Your task to perform on an android device: Open location settings Image 0: 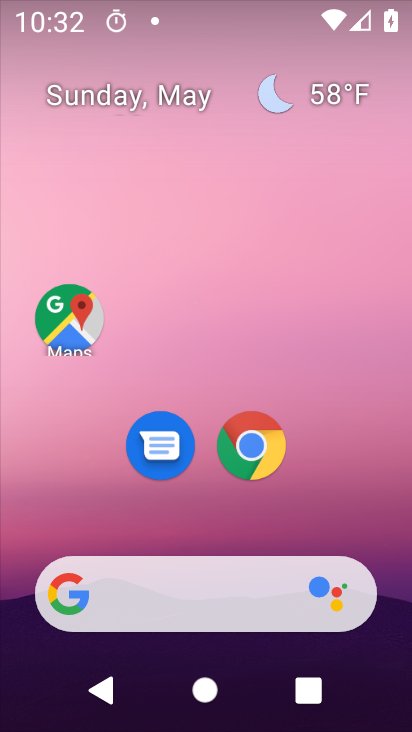
Step 0: drag from (325, 479) to (174, 1)
Your task to perform on an android device: Open location settings Image 1: 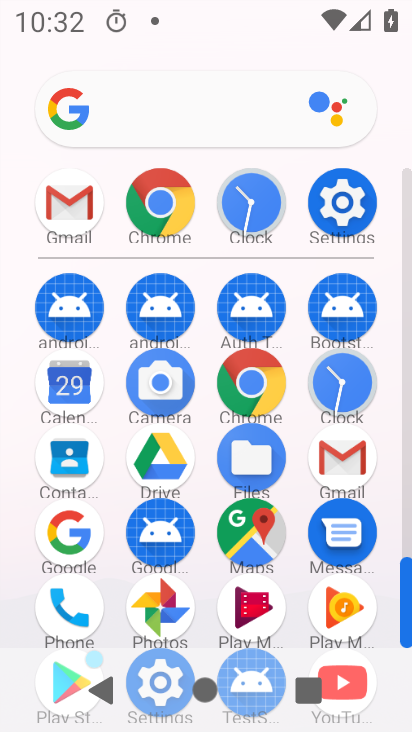
Step 1: drag from (20, 471) to (23, 200)
Your task to perform on an android device: Open location settings Image 2: 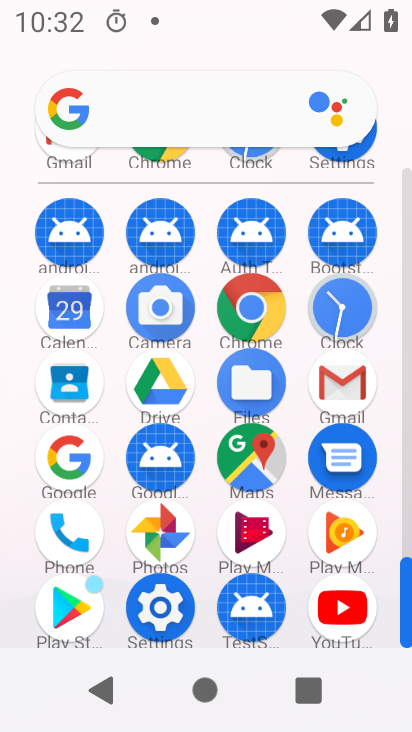
Step 2: click (161, 607)
Your task to perform on an android device: Open location settings Image 3: 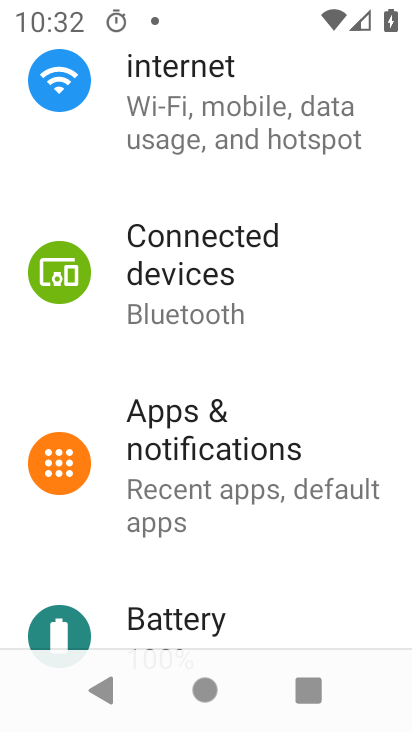
Step 3: drag from (277, 194) to (284, 571)
Your task to perform on an android device: Open location settings Image 4: 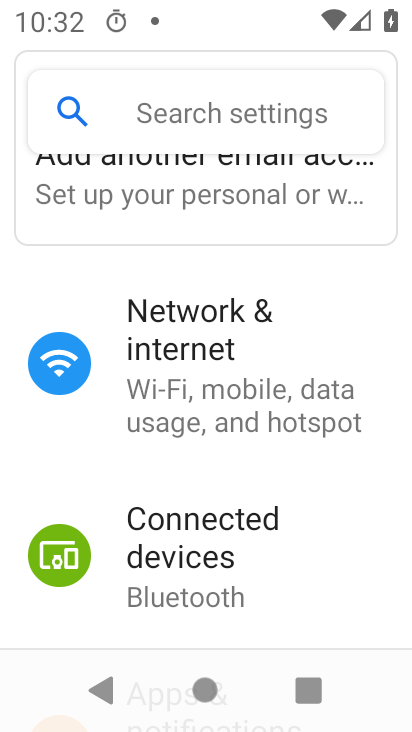
Step 4: drag from (275, 567) to (287, 246)
Your task to perform on an android device: Open location settings Image 5: 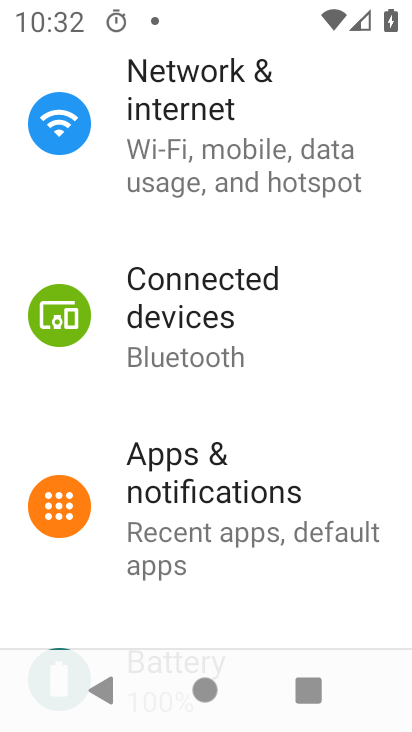
Step 5: drag from (241, 648) to (223, 218)
Your task to perform on an android device: Open location settings Image 6: 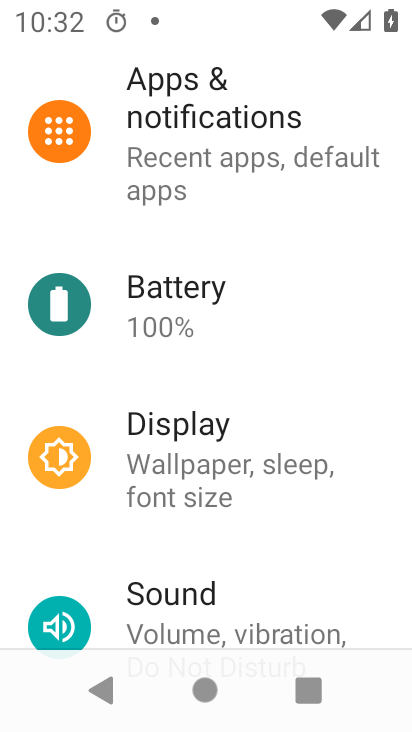
Step 6: drag from (253, 533) to (244, 167)
Your task to perform on an android device: Open location settings Image 7: 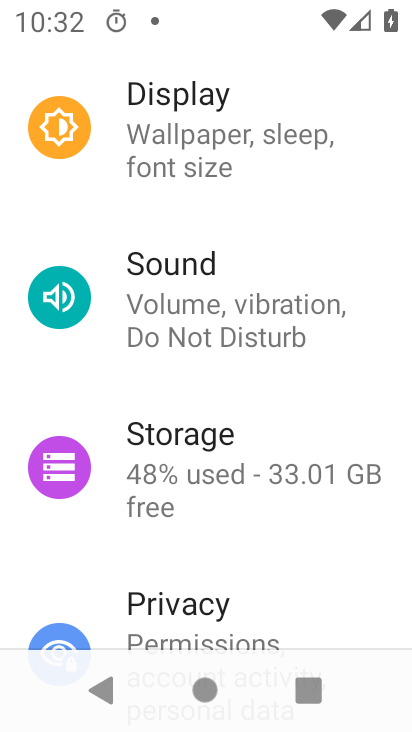
Step 7: drag from (266, 512) to (265, 168)
Your task to perform on an android device: Open location settings Image 8: 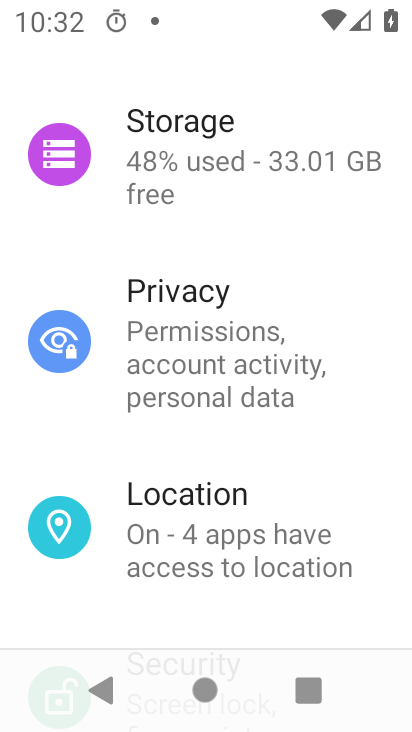
Step 8: click (250, 497)
Your task to perform on an android device: Open location settings Image 9: 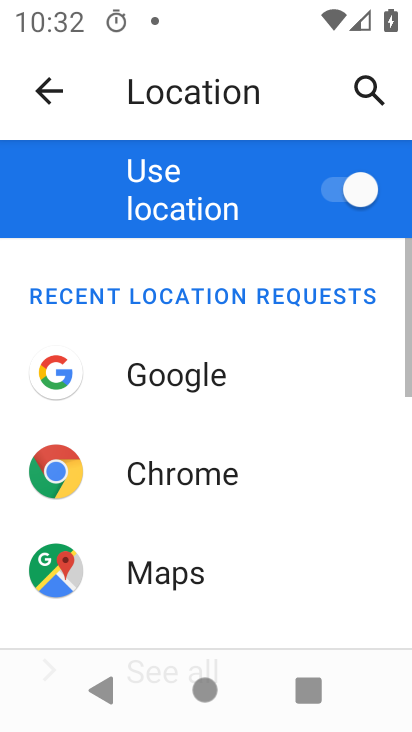
Step 9: drag from (249, 576) to (231, 238)
Your task to perform on an android device: Open location settings Image 10: 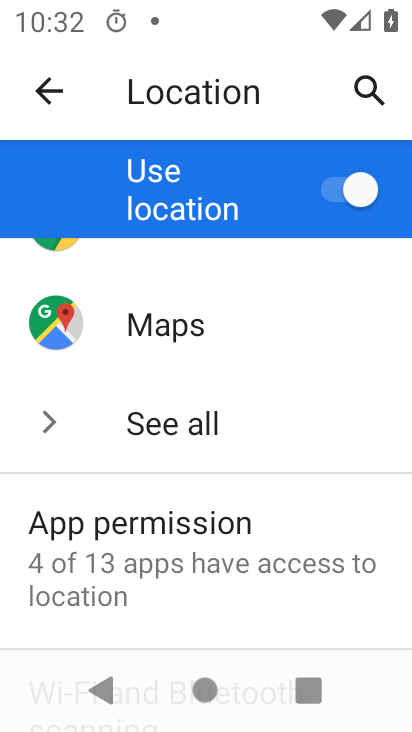
Step 10: drag from (293, 541) to (240, 128)
Your task to perform on an android device: Open location settings Image 11: 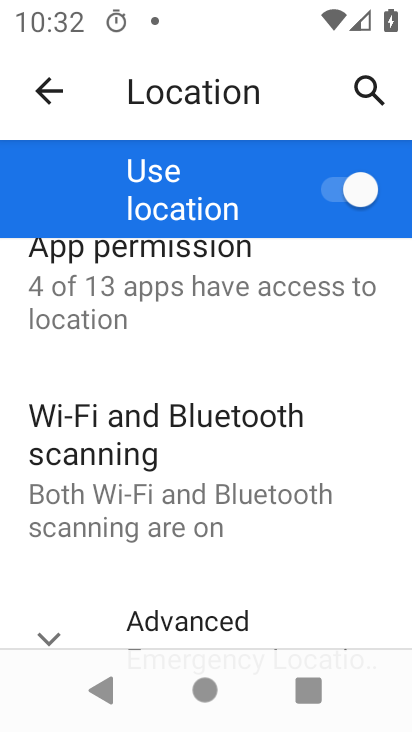
Step 11: drag from (224, 535) to (223, 173)
Your task to perform on an android device: Open location settings Image 12: 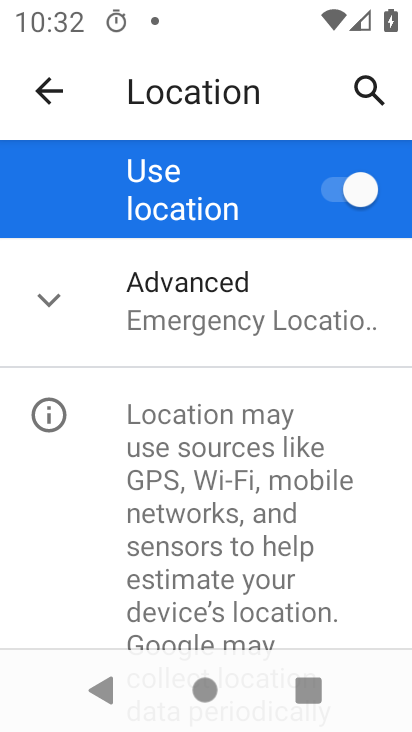
Step 12: click (49, 308)
Your task to perform on an android device: Open location settings Image 13: 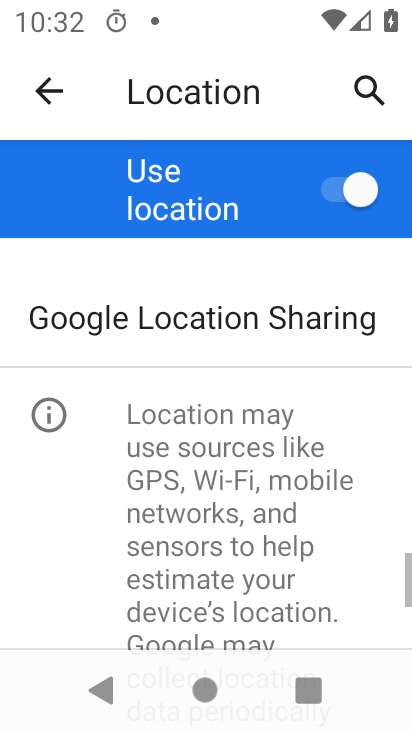
Step 13: task complete